Your task to perform on an android device: Open maps Image 0: 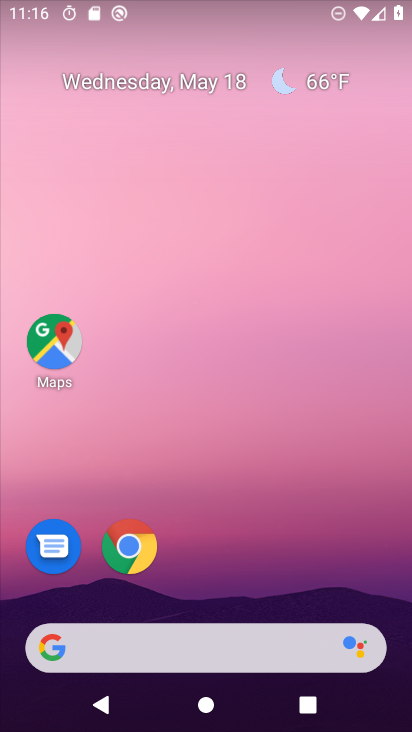
Step 0: click (53, 332)
Your task to perform on an android device: Open maps Image 1: 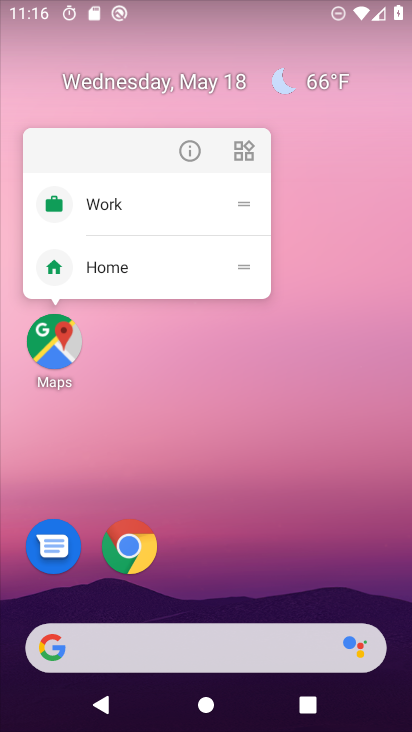
Step 1: click (53, 332)
Your task to perform on an android device: Open maps Image 2: 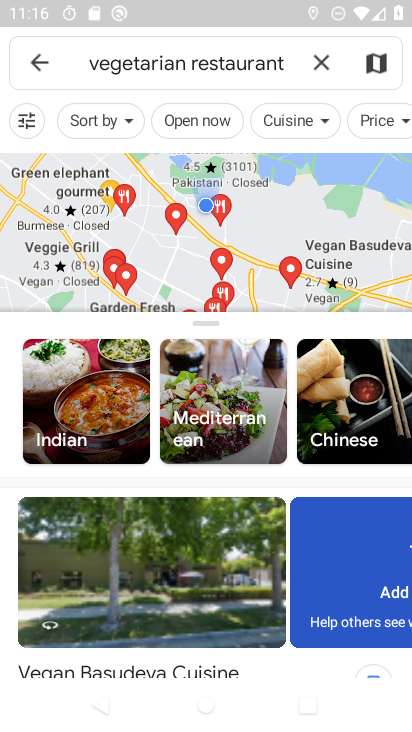
Step 2: task complete